Your task to perform on an android device: Go to Google Image 0: 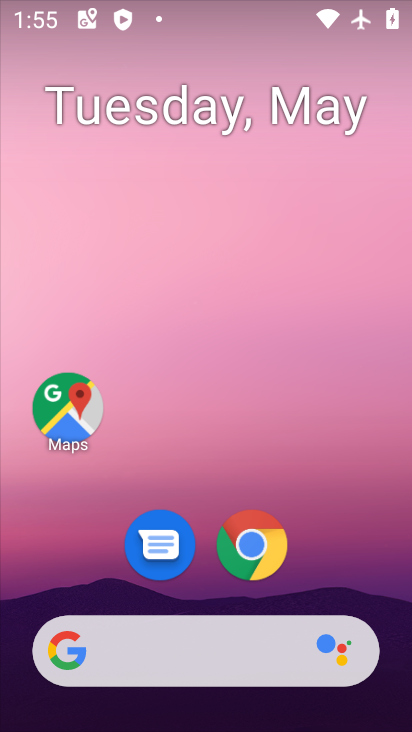
Step 0: click (255, 537)
Your task to perform on an android device: Go to Google Image 1: 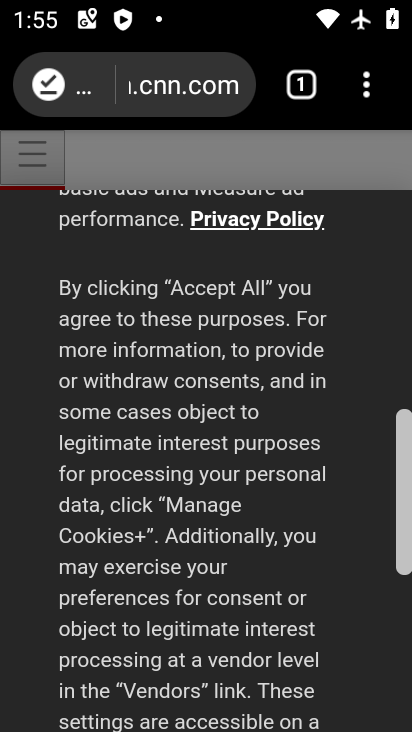
Step 1: task complete